Your task to perform on an android device: Open calendar and show me the second week of next month Image 0: 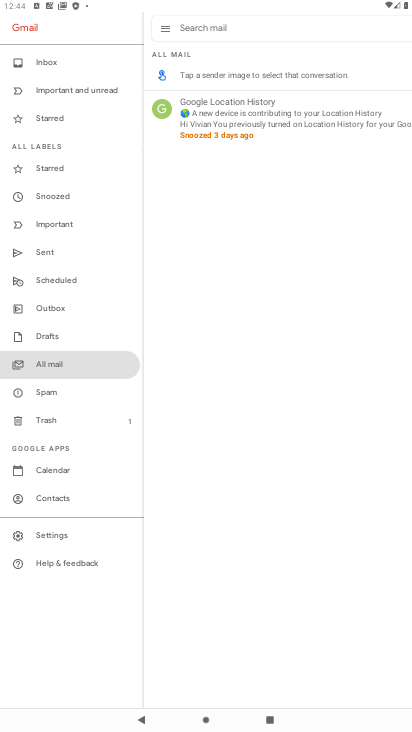
Step 0: press home button
Your task to perform on an android device: Open calendar and show me the second week of next month Image 1: 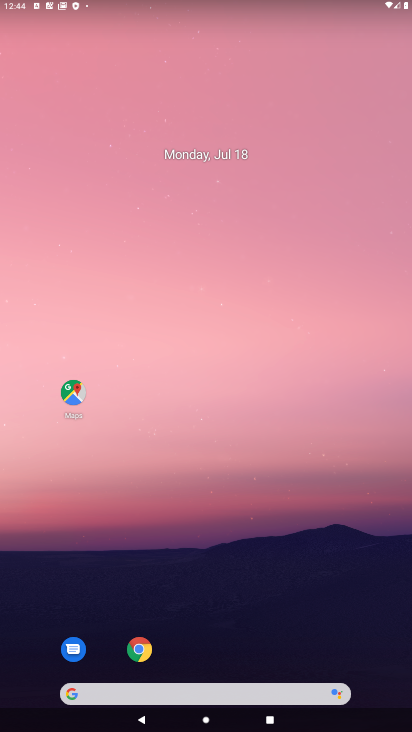
Step 1: drag from (376, 650) to (341, 165)
Your task to perform on an android device: Open calendar and show me the second week of next month Image 2: 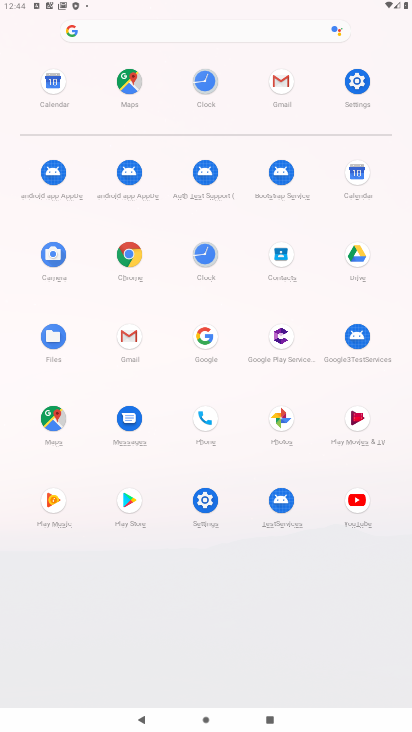
Step 2: click (357, 174)
Your task to perform on an android device: Open calendar and show me the second week of next month Image 3: 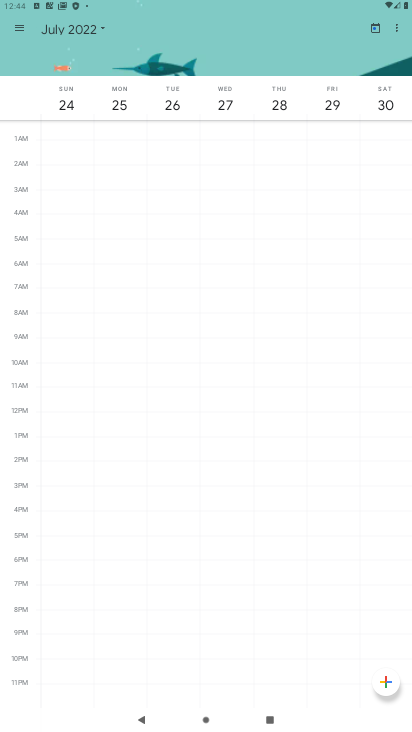
Step 3: click (97, 28)
Your task to perform on an android device: Open calendar and show me the second week of next month Image 4: 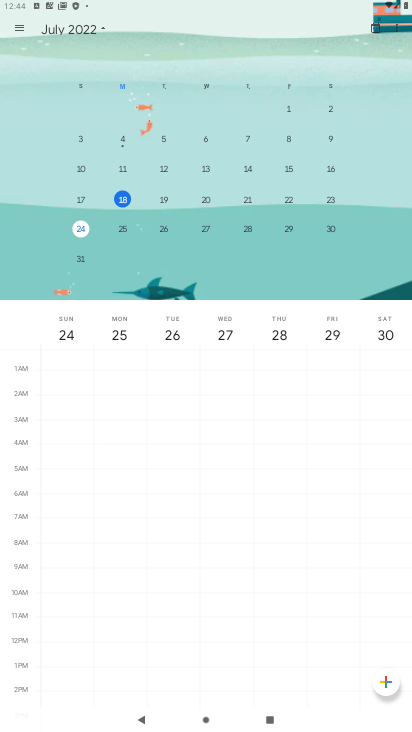
Step 4: drag from (327, 176) to (63, 155)
Your task to perform on an android device: Open calendar and show me the second week of next month Image 5: 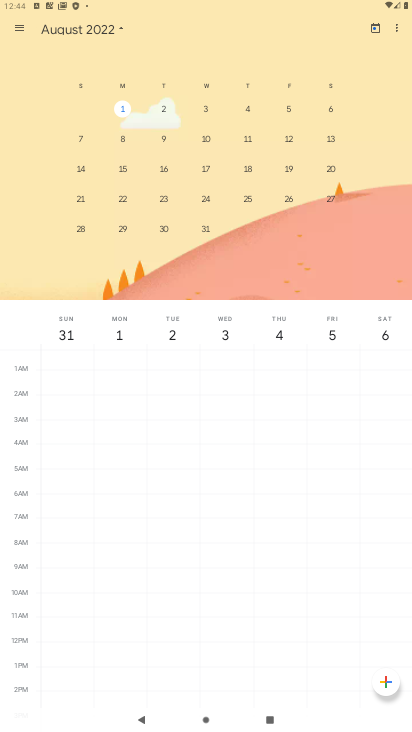
Step 5: click (78, 169)
Your task to perform on an android device: Open calendar and show me the second week of next month Image 6: 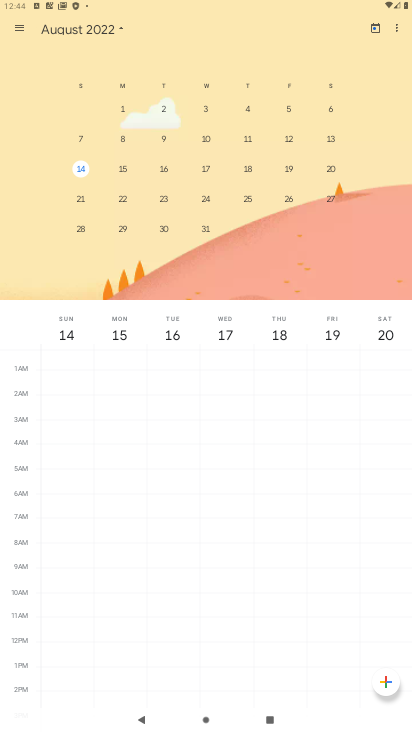
Step 6: task complete